Your task to perform on an android device: choose inbox layout in the gmail app Image 0: 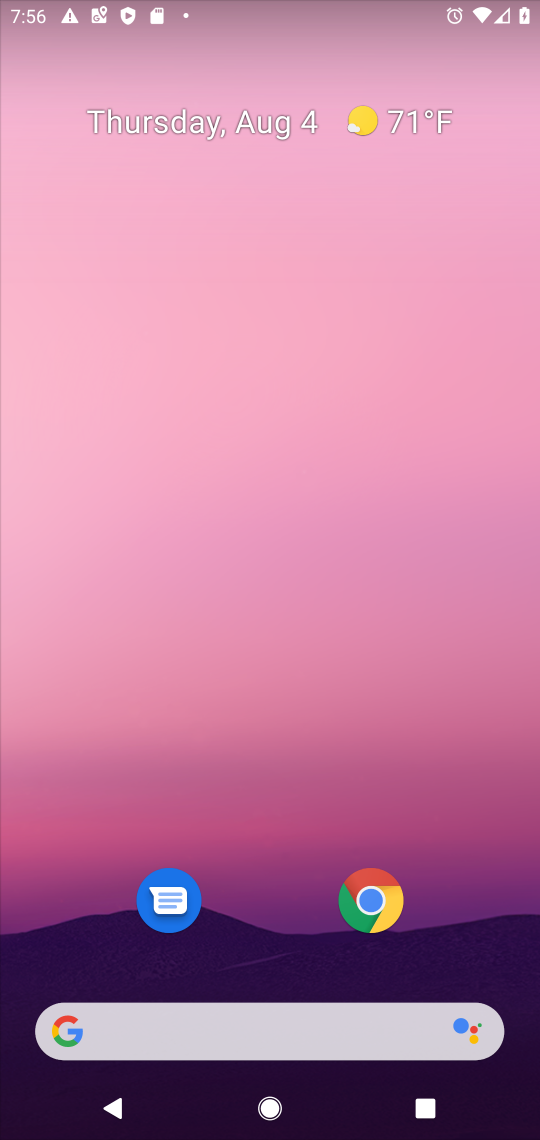
Step 0: drag from (221, 1034) to (366, 5)
Your task to perform on an android device: choose inbox layout in the gmail app Image 1: 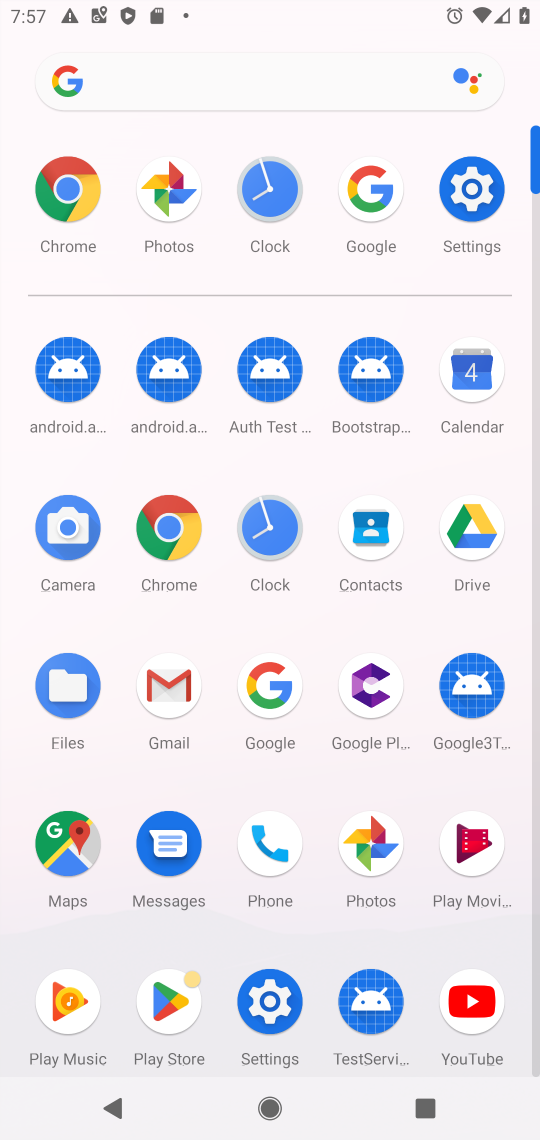
Step 1: click (168, 681)
Your task to perform on an android device: choose inbox layout in the gmail app Image 2: 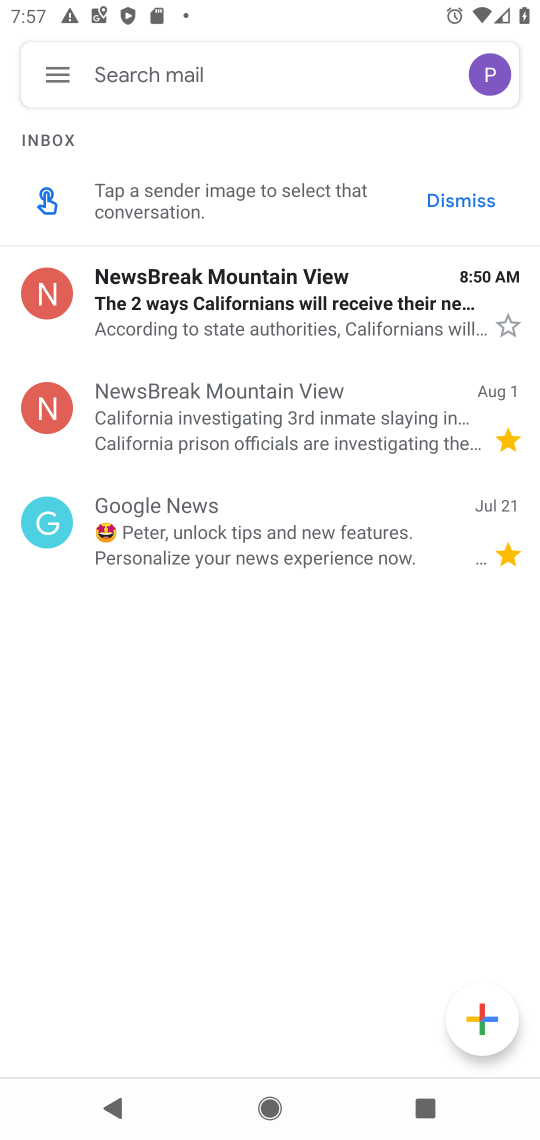
Step 2: click (58, 74)
Your task to perform on an android device: choose inbox layout in the gmail app Image 3: 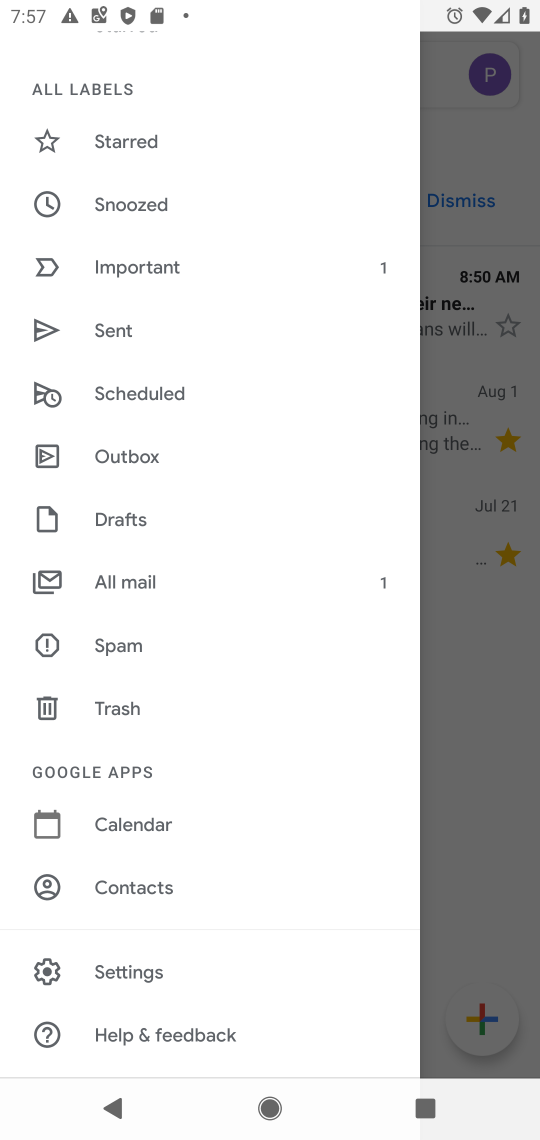
Step 3: click (120, 970)
Your task to perform on an android device: choose inbox layout in the gmail app Image 4: 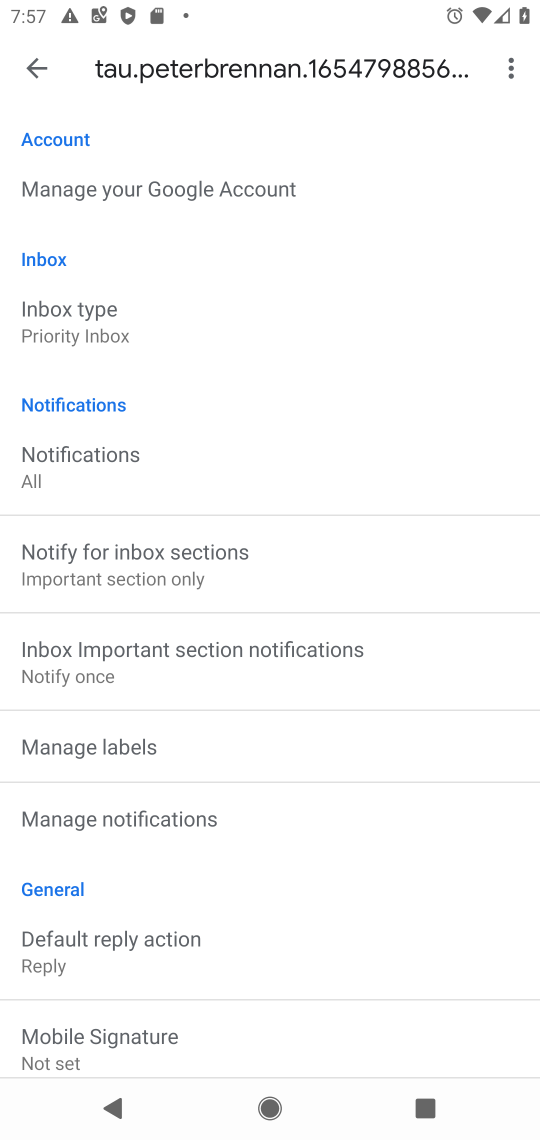
Step 4: click (114, 344)
Your task to perform on an android device: choose inbox layout in the gmail app Image 5: 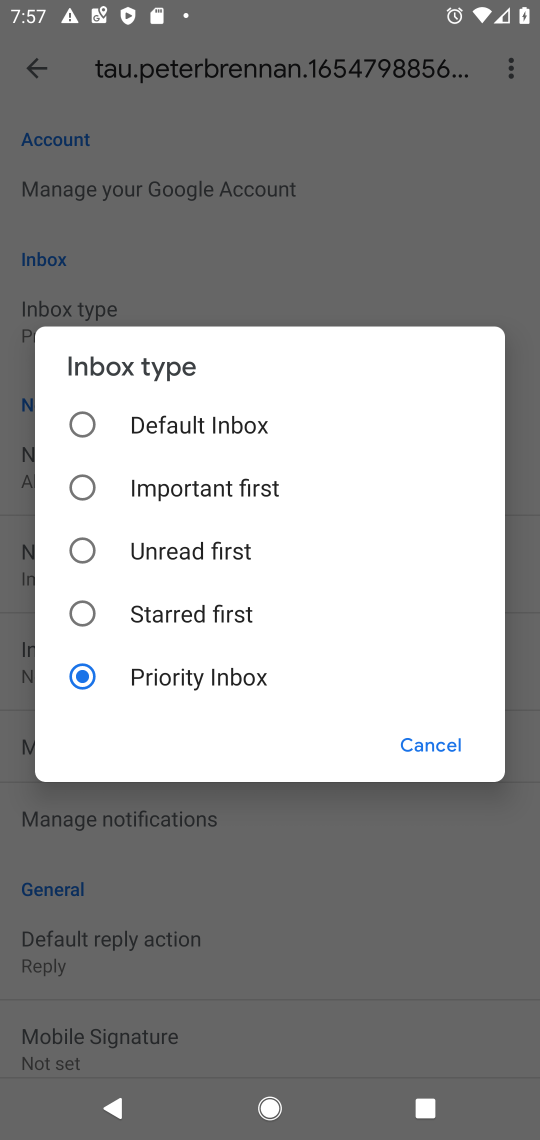
Step 5: click (90, 495)
Your task to perform on an android device: choose inbox layout in the gmail app Image 6: 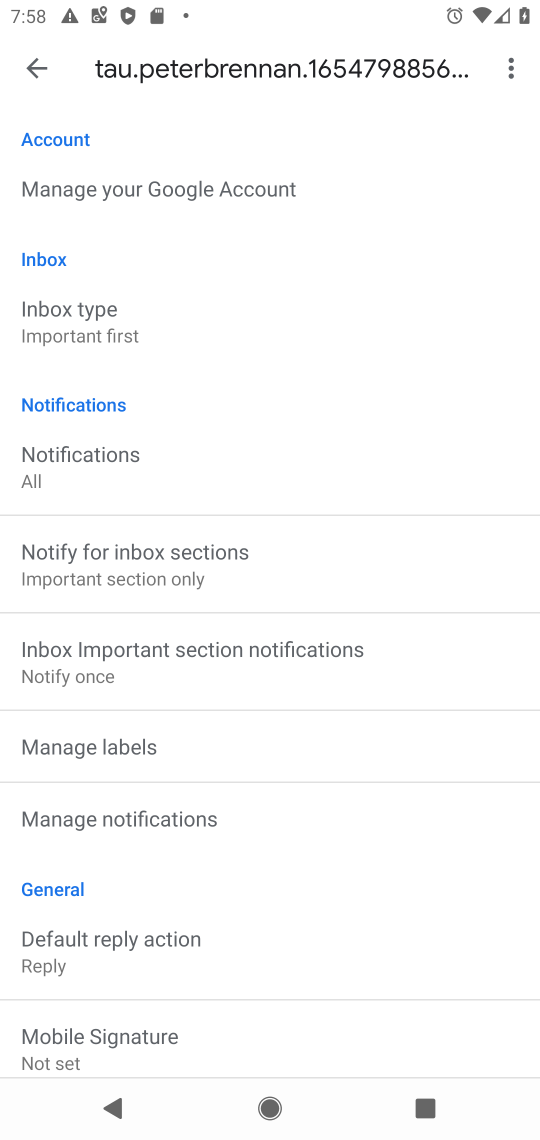
Step 6: task complete